Your task to perform on an android device: turn off data saver in the chrome app Image 0: 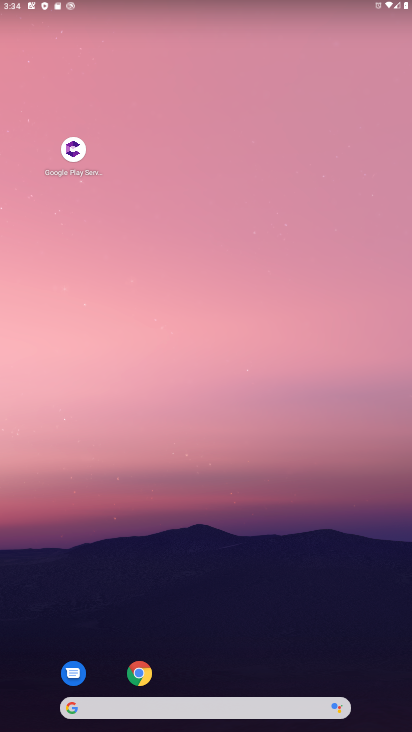
Step 0: drag from (199, 658) to (162, 203)
Your task to perform on an android device: turn off data saver in the chrome app Image 1: 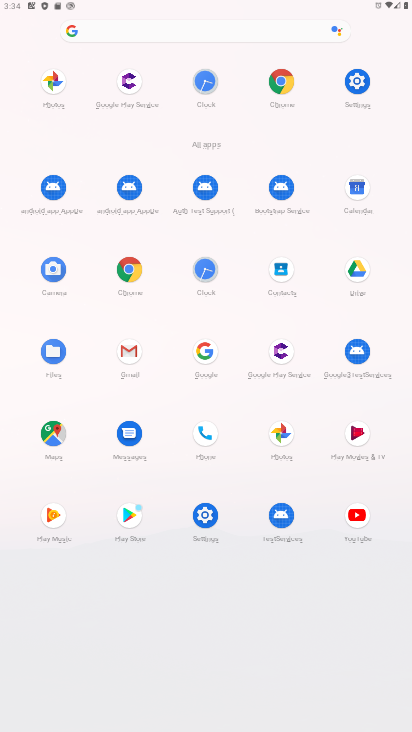
Step 1: click (291, 73)
Your task to perform on an android device: turn off data saver in the chrome app Image 2: 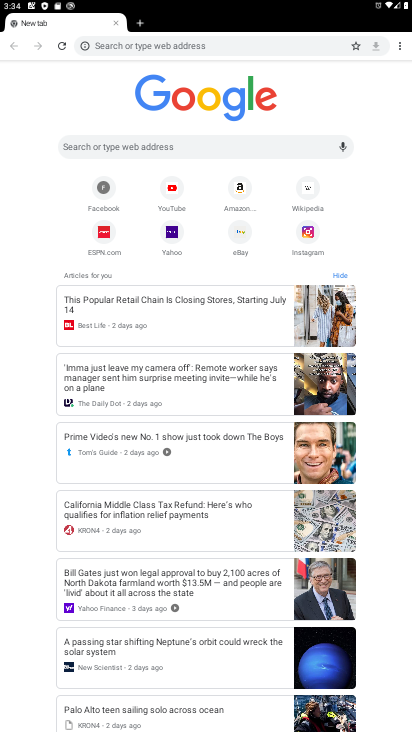
Step 2: click (400, 38)
Your task to perform on an android device: turn off data saver in the chrome app Image 3: 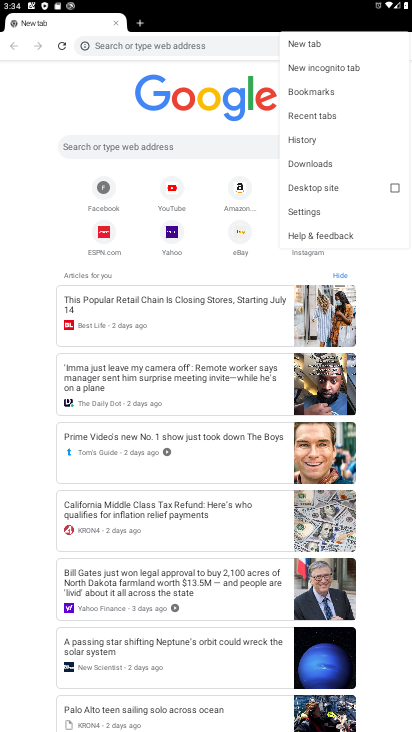
Step 3: click (314, 211)
Your task to perform on an android device: turn off data saver in the chrome app Image 4: 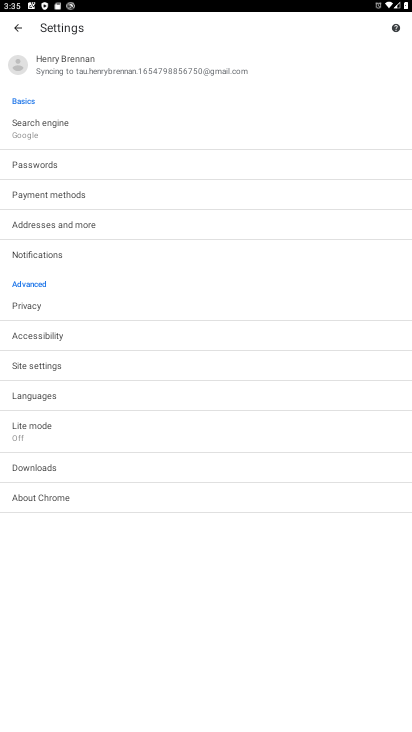
Step 4: click (36, 429)
Your task to perform on an android device: turn off data saver in the chrome app Image 5: 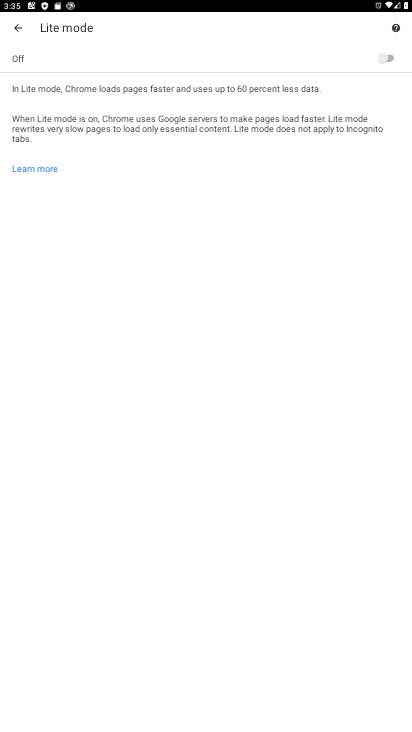
Step 5: task complete